Your task to perform on an android device: Check out the new nike air max 2020. Image 0: 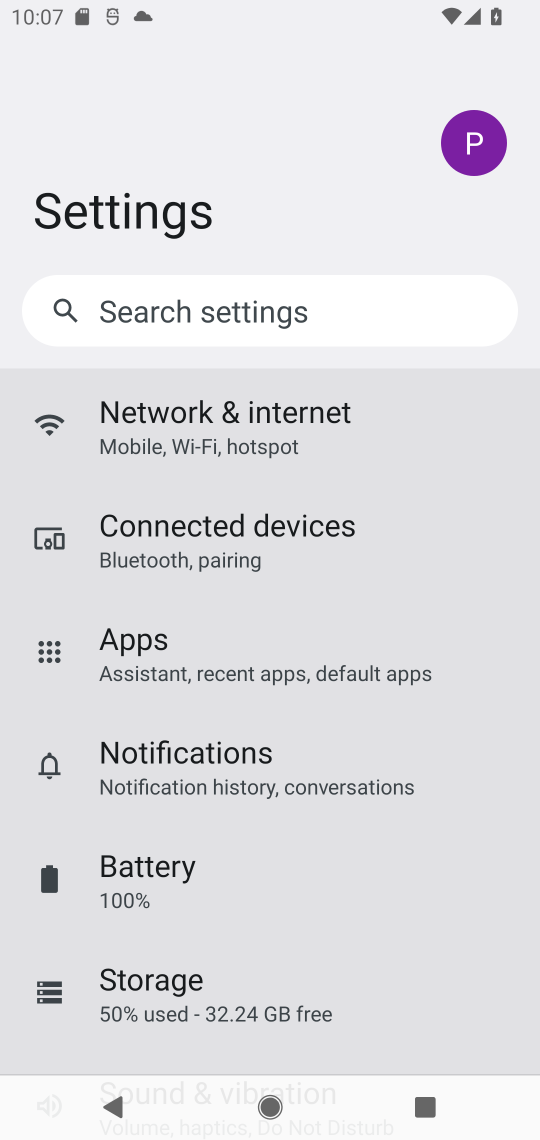
Step 0: press home button
Your task to perform on an android device: Check out the new nike air max 2020. Image 1: 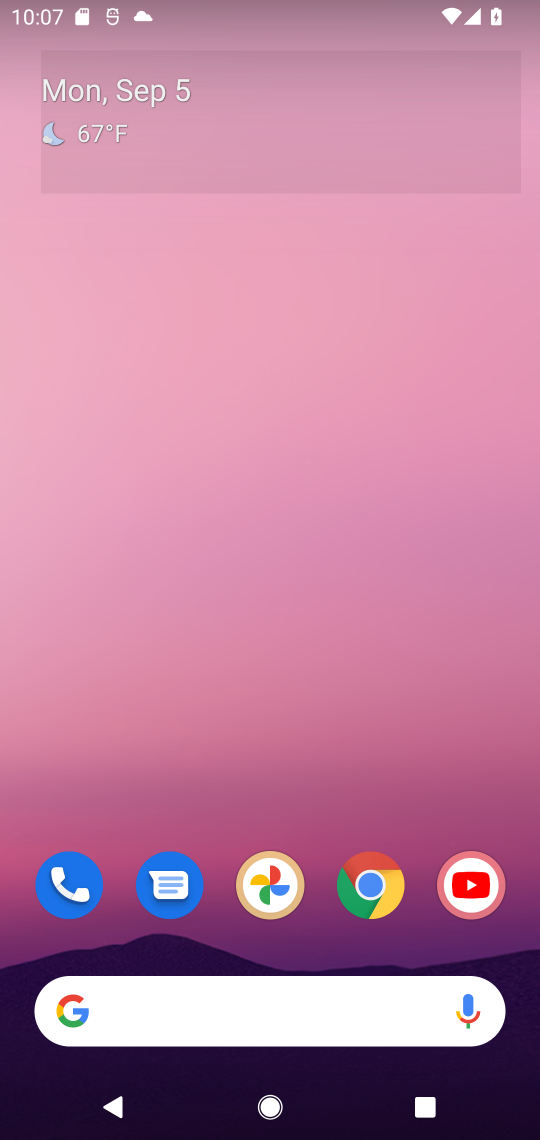
Step 1: click (365, 889)
Your task to perform on an android device: Check out the new nike air max 2020. Image 2: 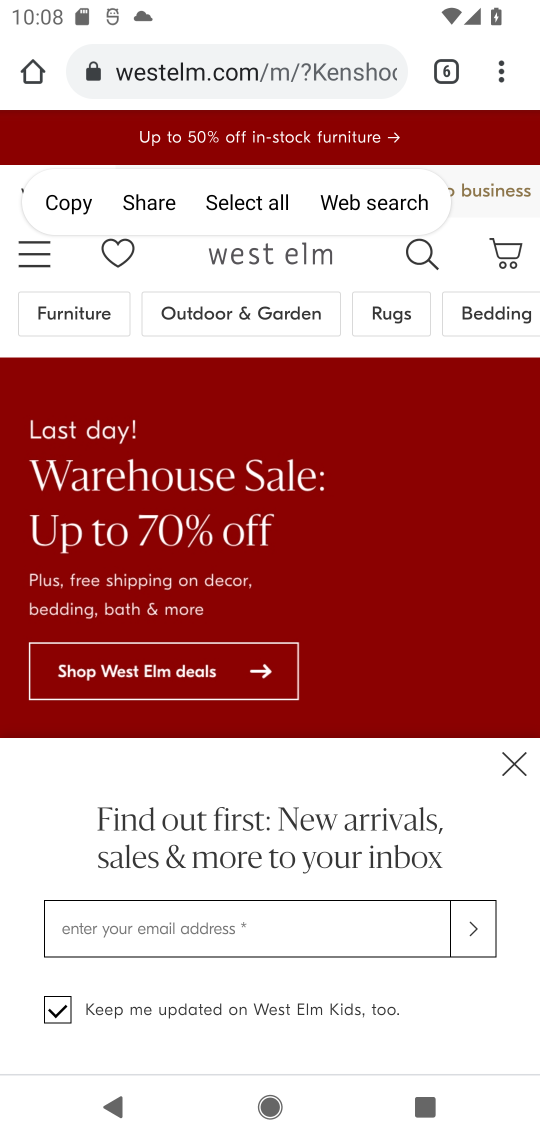
Step 2: click (502, 83)
Your task to perform on an android device: Check out the new nike air max 2020. Image 3: 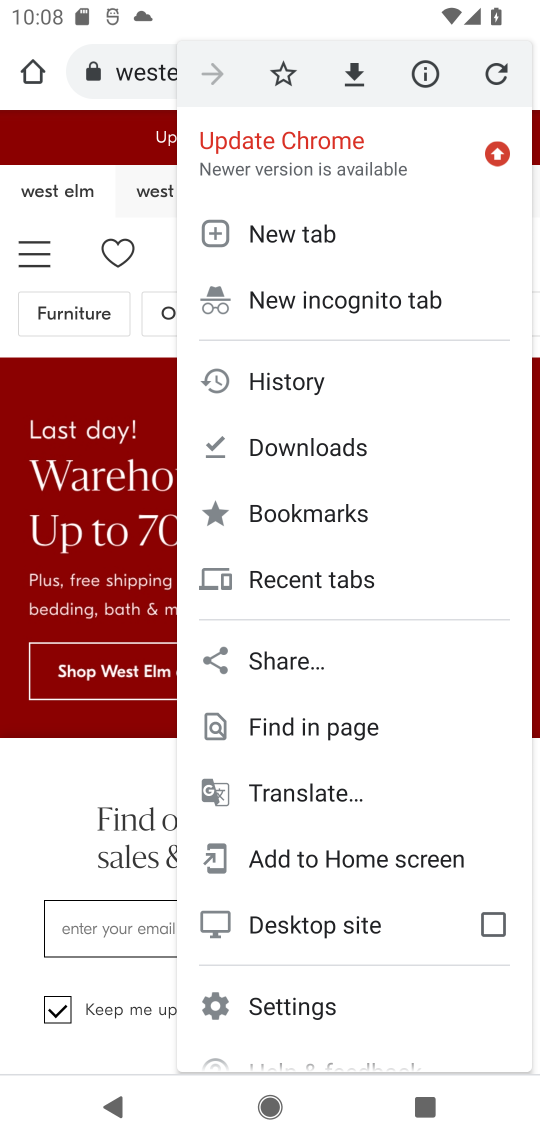
Step 3: click (320, 227)
Your task to perform on an android device: Check out the new nike air max 2020. Image 4: 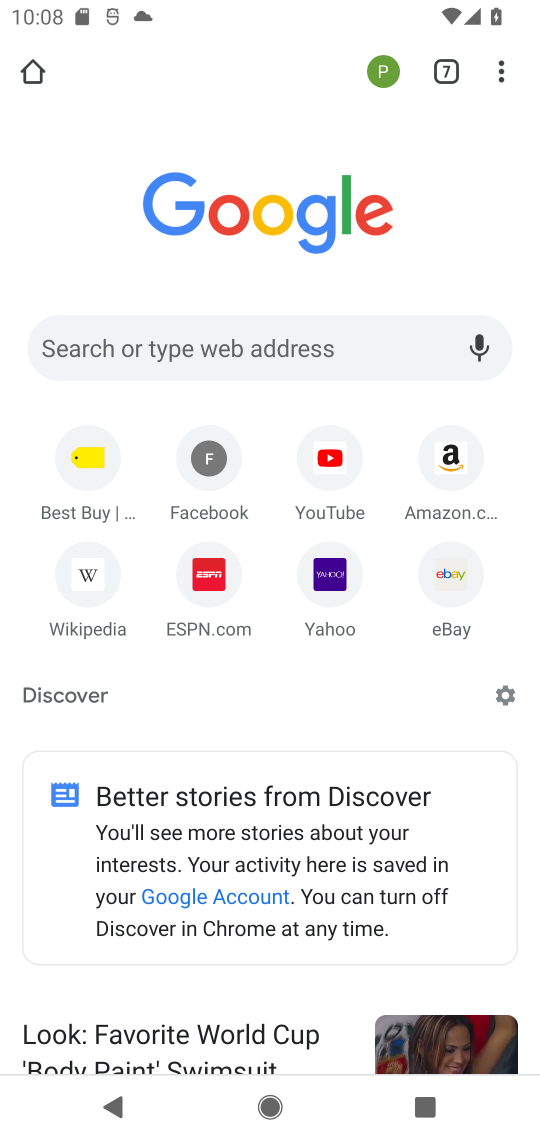
Step 4: click (223, 349)
Your task to perform on an android device: Check out the new nike air max 2020. Image 5: 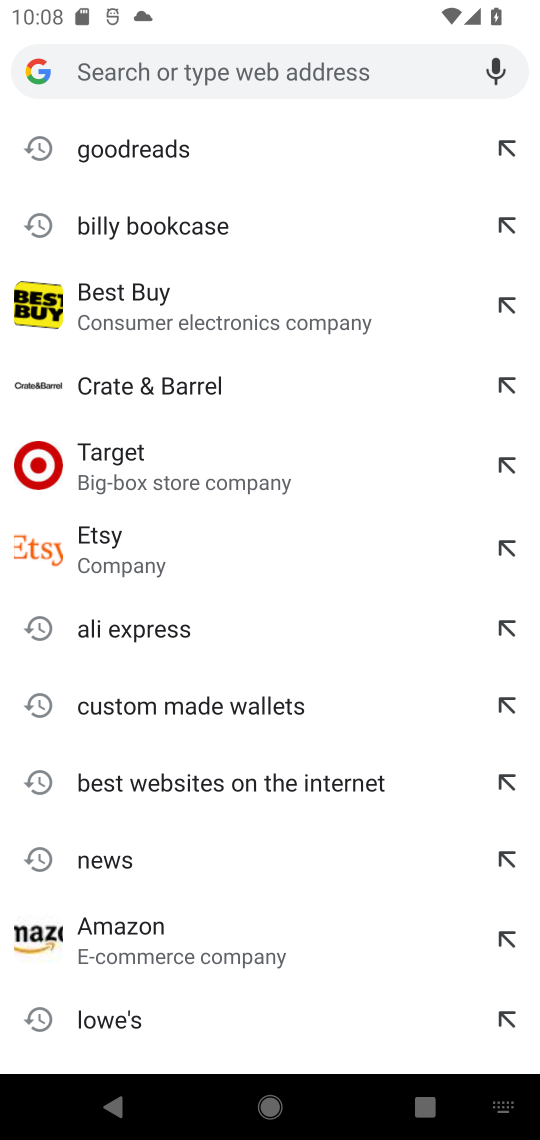
Step 5: type "nike air max 2020"
Your task to perform on an android device: Check out the new nike air max 2020. Image 6: 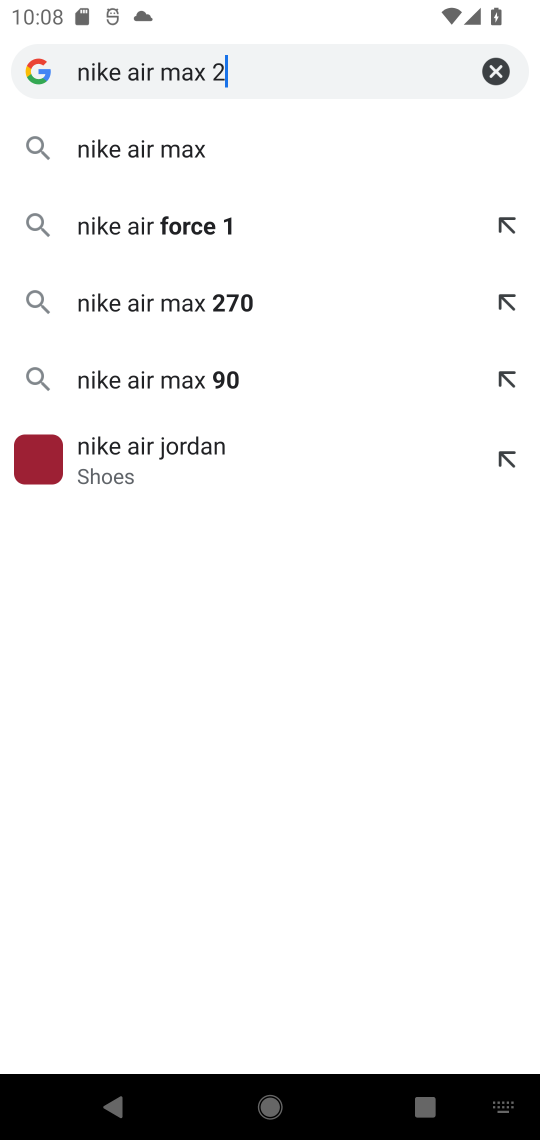
Step 6: type ""
Your task to perform on an android device: Check out the new nike air max 2020. Image 7: 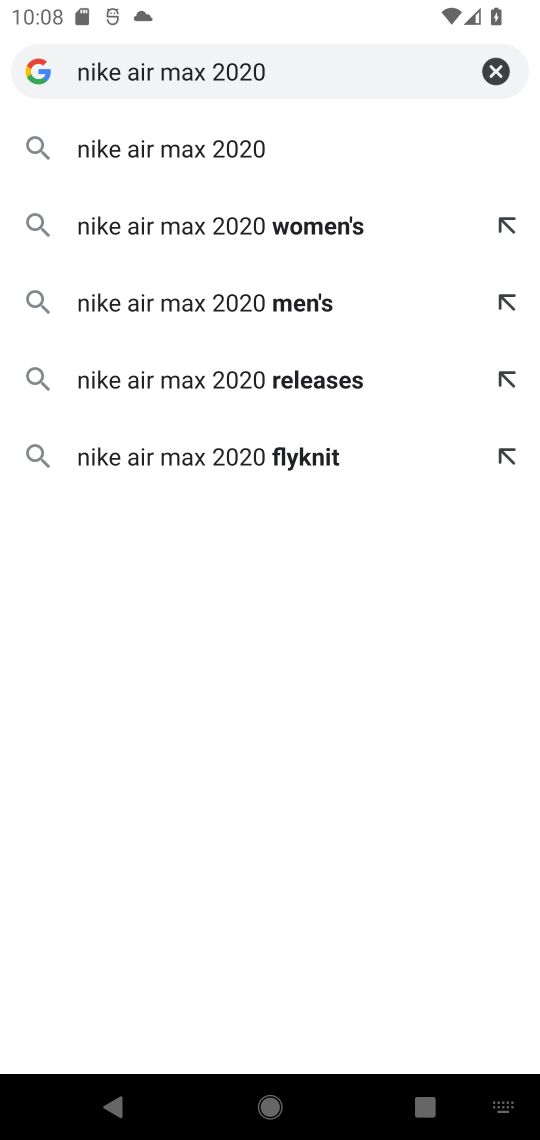
Step 7: click (160, 151)
Your task to perform on an android device: Check out the new nike air max 2020. Image 8: 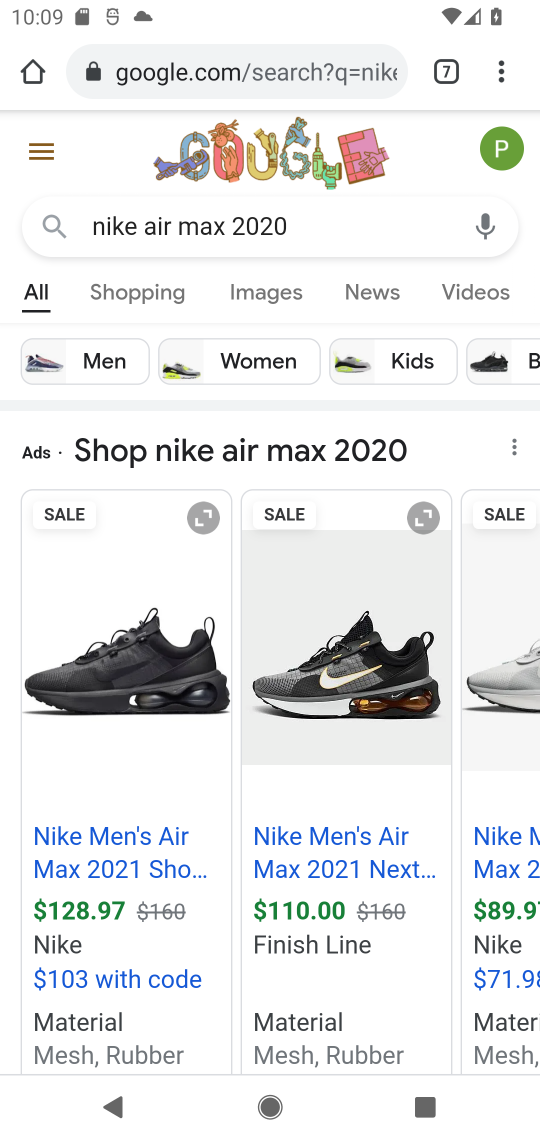
Step 8: task complete